Your task to perform on an android device: see sites visited before in the chrome app Image 0: 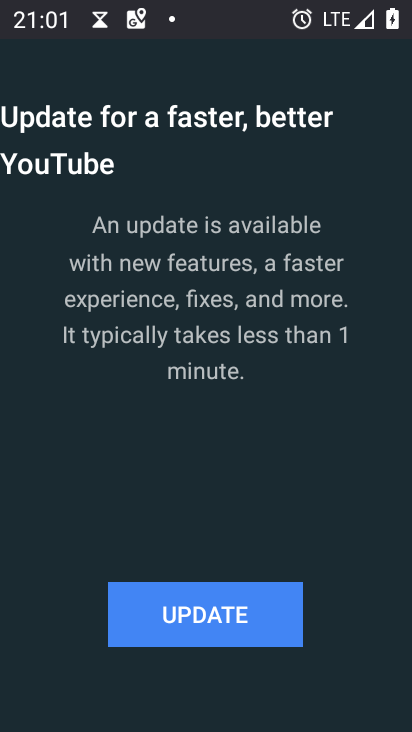
Step 0: press home button
Your task to perform on an android device: see sites visited before in the chrome app Image 1: 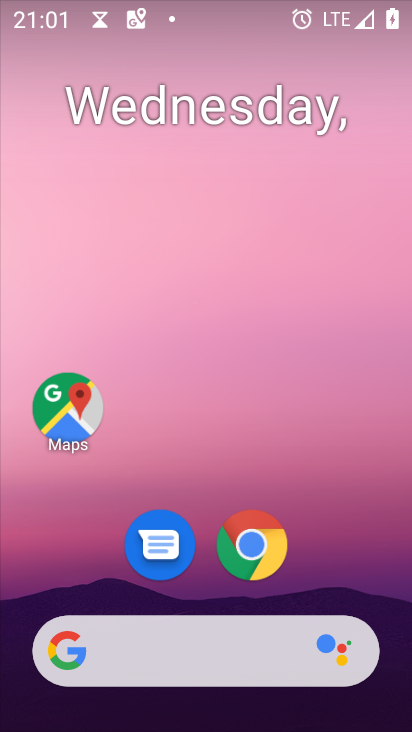
Step 1: click (242, 551)
Your task to perform on an android device: see sites visited before in the chrome app Image 2: 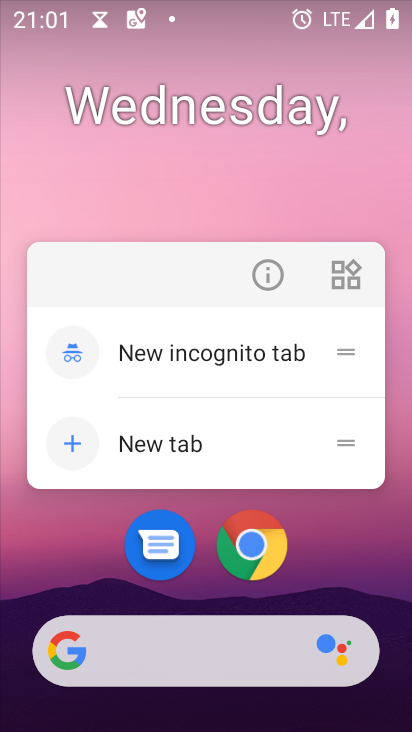
Step 2: click (252, 561)
Your task to perform on an android device: see sites visited before in the chrome app Image 3: 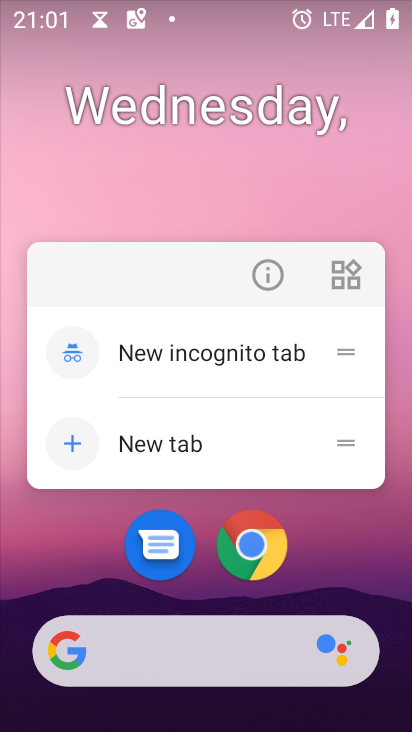
Step 3: click (257, 558)
Your task to perform on an android device: see sites visited before in the chrome app Image 4: 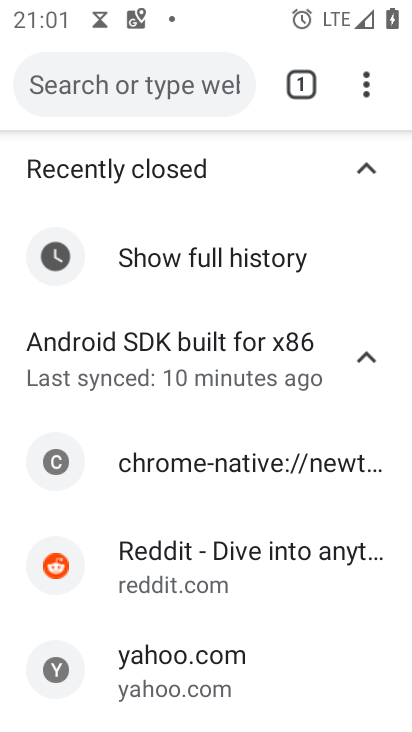
Step 4: task complete